Your task to perform on an android device: Check the weather Image 0: 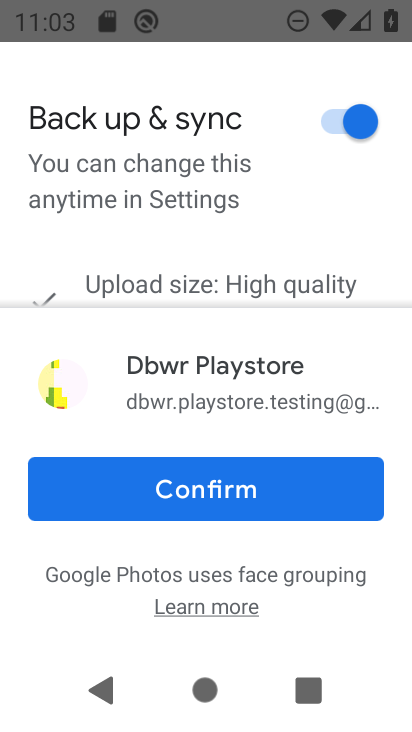
Step 0: press home button
Your task to perform on an android device: Check the weather Image 1: 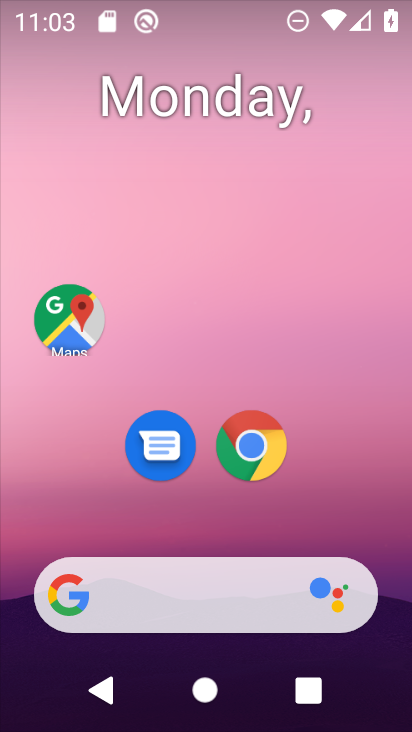
Step 1: click (242, 443)
Your task to perform on an android device: Check the weather Image 2: 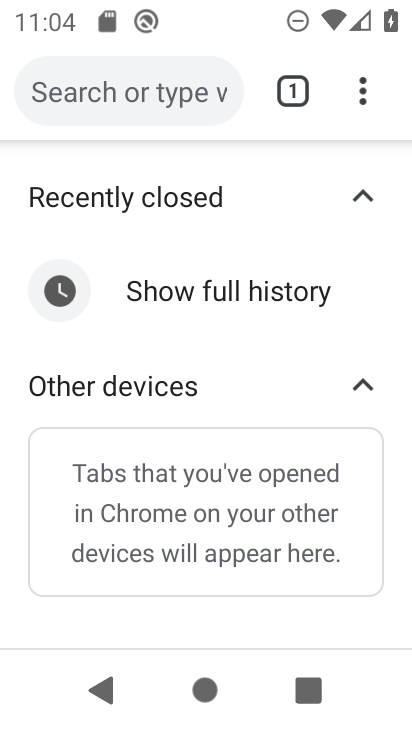
Step 2: click (116, 101)
Your task to perform on an android device: Check the weather Image 3: 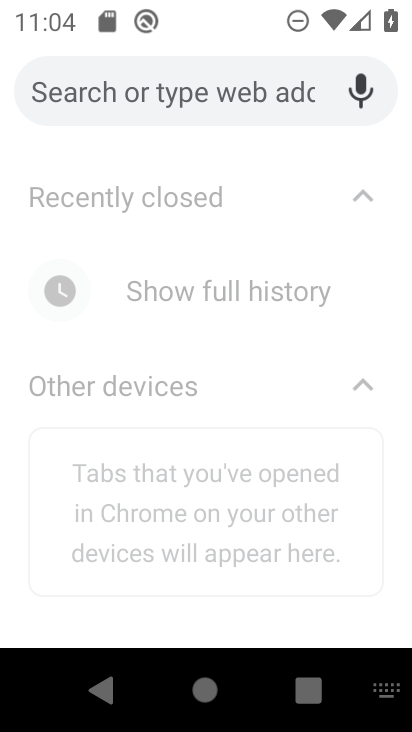
Step 3: type "weather"
Your task to perform on an android device: Check the weather Image 4: 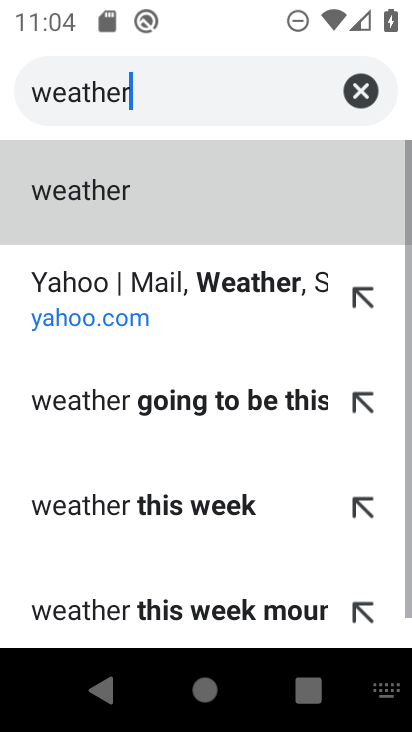
Step 4: click (103, 193)
Your task to perform on an android device: Check the weather Image 5: 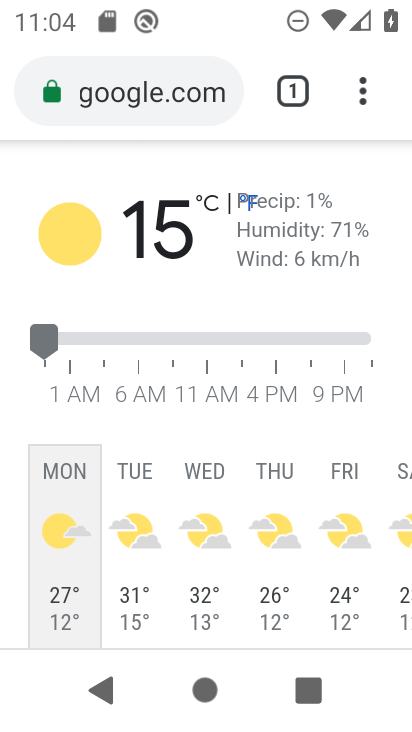
Step 5: task complete